Your task to perform on an android device: open chrome and create a bookmark for the current page Image 0: 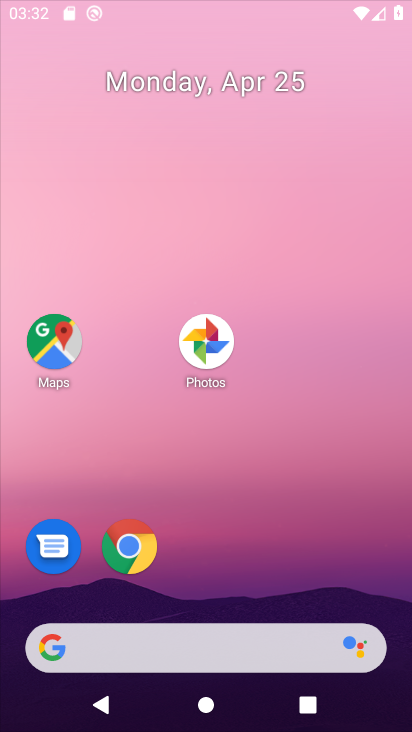
Step 0: click (295, 282)
Your task to perform on an android device: open chrome and create a bookmark for the current page Image 1: 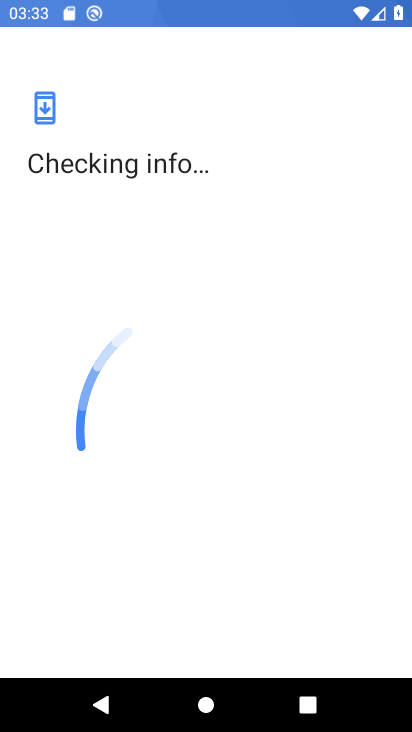
Step 1: press home button
Your task to perform on an android device: open chrome and create a bookmark for the current page Image 2: 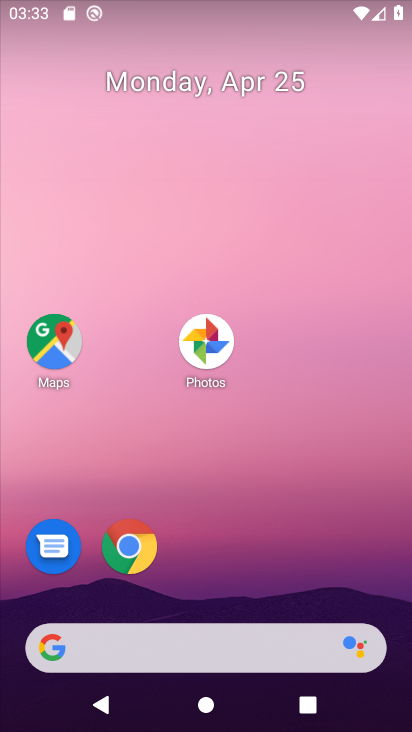
Step 2: drag from (257, 588) to (295, 211)
Your task to perform on an android device: open chrome and create a bookmark for the current page Image 3: 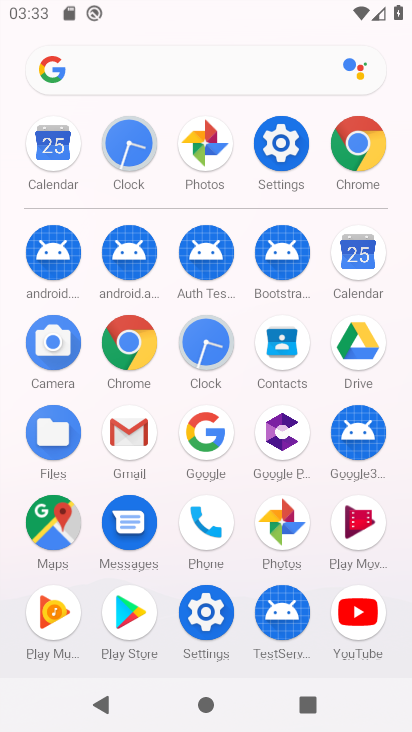
Step 3: click (363, 147)
Your task to perform on an android device: open chrome and create a bookmark for the current page Image 4: 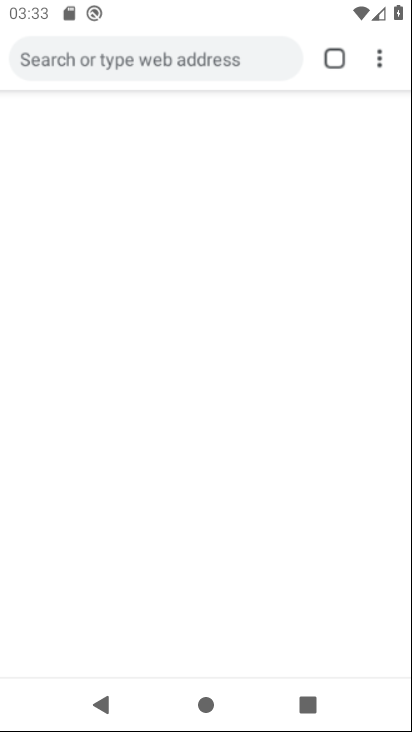
Step 4: click (359, 63)
Your task to perform on an android device: open chrome and create a bookmark for the current page Image 5: 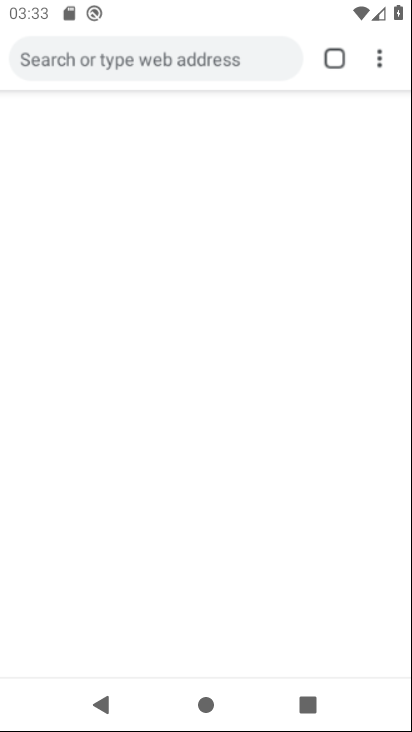
Step 5: click (209, 60)
Your task to perform on an android device: open chrome and create a bookmark for the current page Image 6: 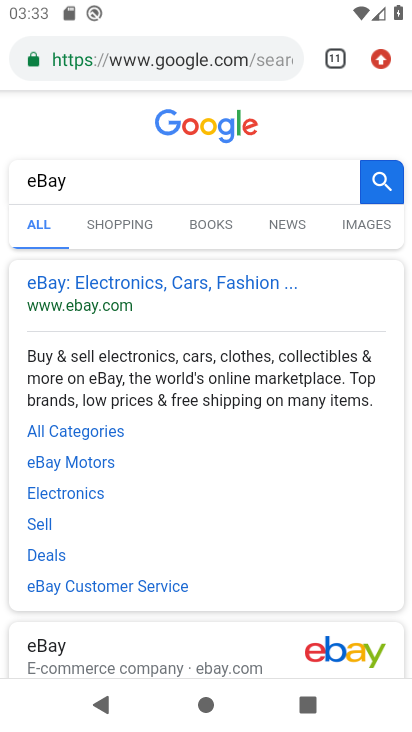
Step 6: click (357, 57)
Your task to perform on an android device: open chrome and create a bookmark for the current page Image 7: 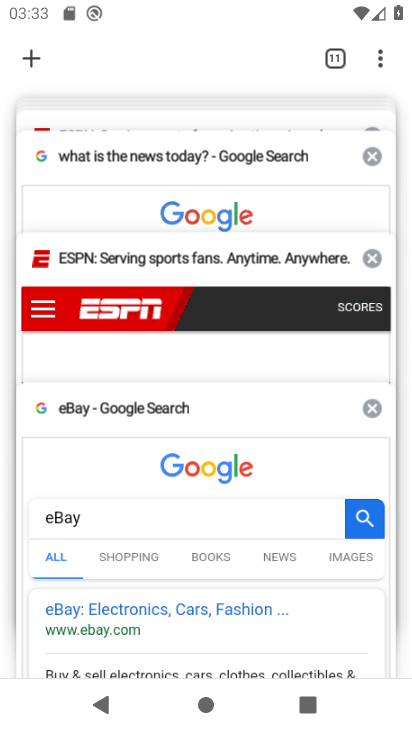
Step 7: click (231, 468)
Your task to perform on an android device: open chrome and create a bookmark for the current page Image 8: 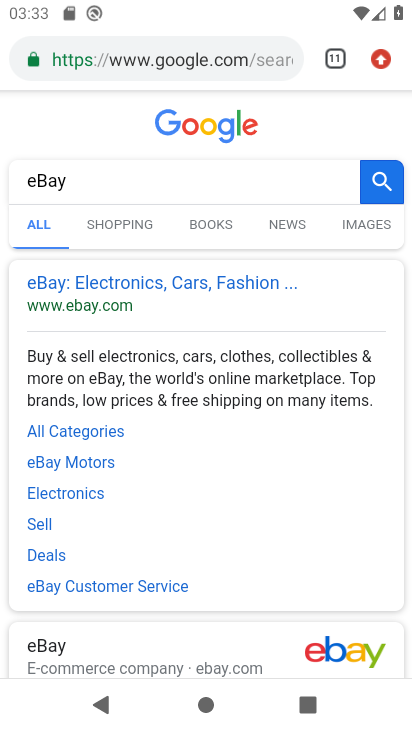
Step 8: click (380, 60)
Your task to perform on an android device: open chrome and create a bookmark for the current page Image 9: 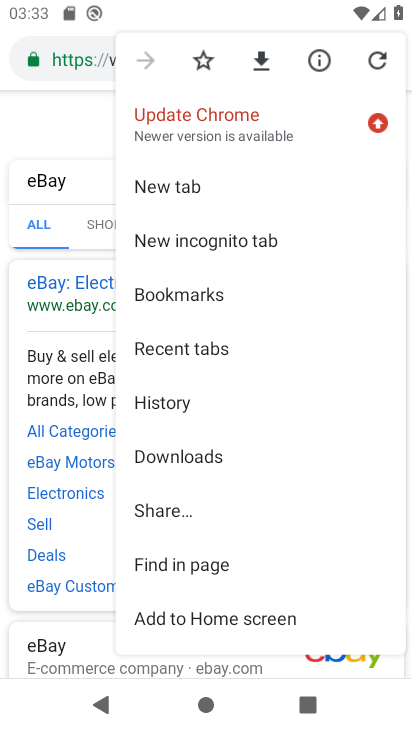
Step 9: click (206, 61)
Your task to perform on an android device: open chrome and create a bookmark for the current page Image 10: 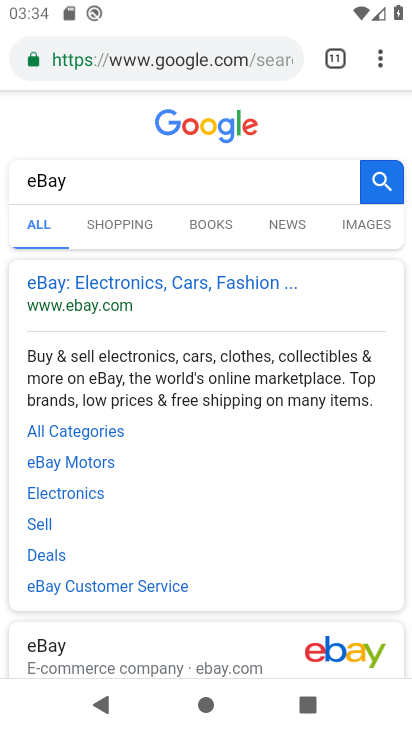
Step 10: task complete